Your task to perform on an android device: read, delete, or share a saved page in the chrome app Image 0: 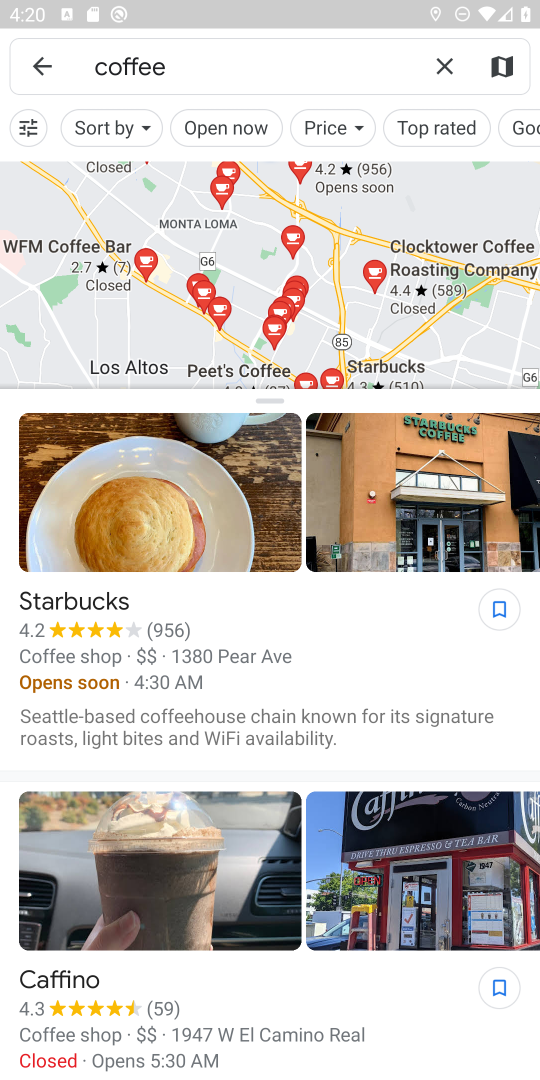
Step 0: press home button
Your task to perform on an android device: read, delete, or share a saved page in the chrome app Image 1: 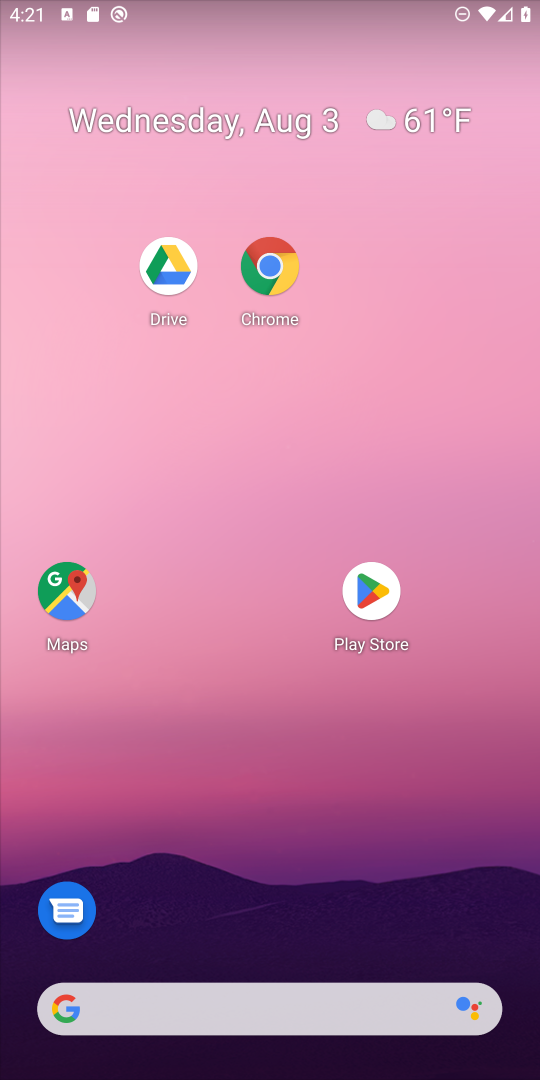
Step 1: drag from (323, 993) to (420, 60)
Your task to perform on an android device: read, delete, or share a saved page in the chrome app Image 2: 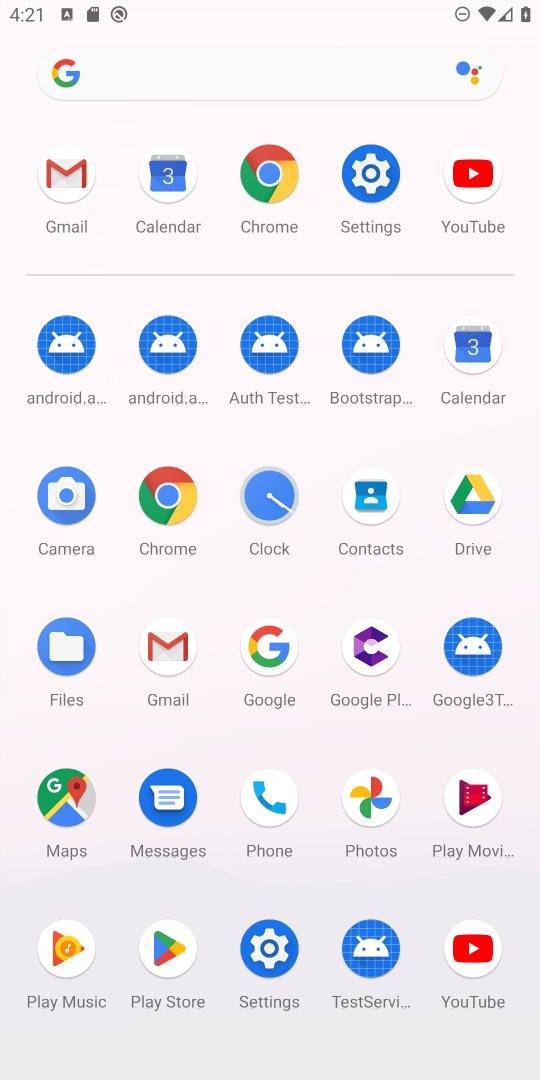
Step 2: click (185, 493)
Your task to perform on an android device: read, delete, or share a saved page in the chrome app Image 3: 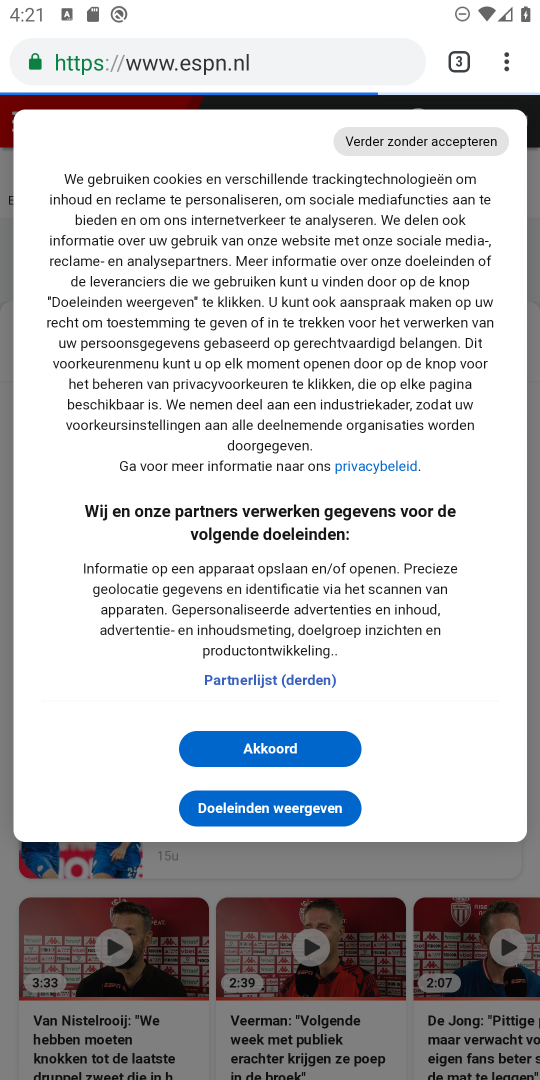
Step 3: click (508, 60)
Your task to perform on an android device: read, delete, or share a saved page in the chrome app Image 4: 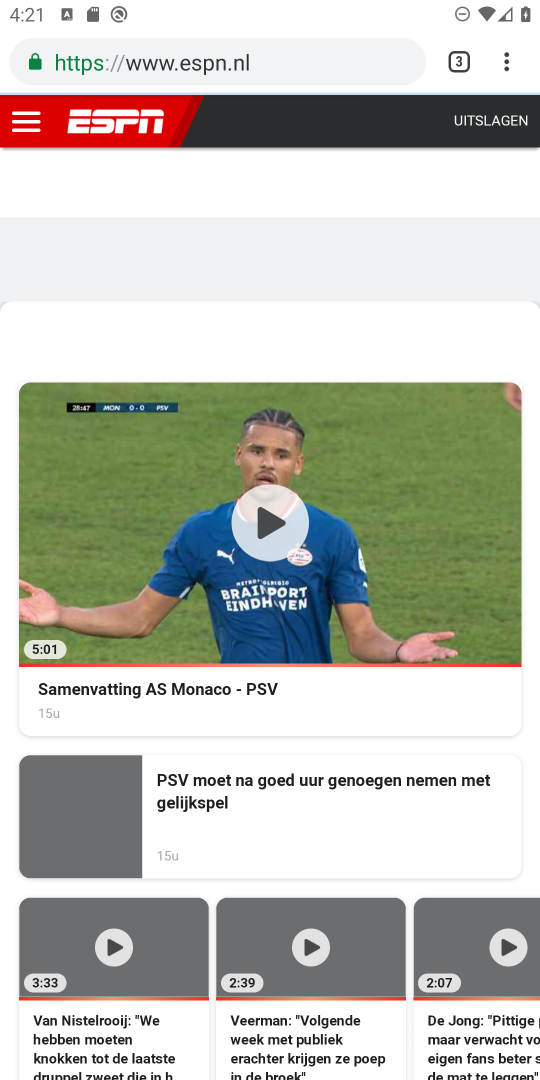
Step 4: click (503, 59)
Your task to perform on an android device: read, delete, or share a saved page in the chrome app Image 5: 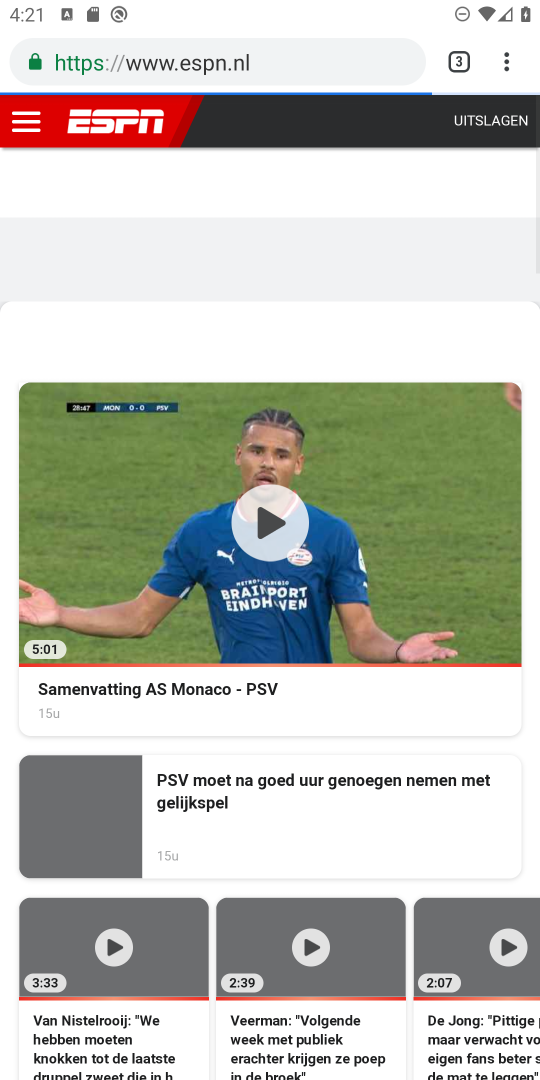
Step 5: task complete